Your task to perform on an android device: toggle sleep mode Image 0: 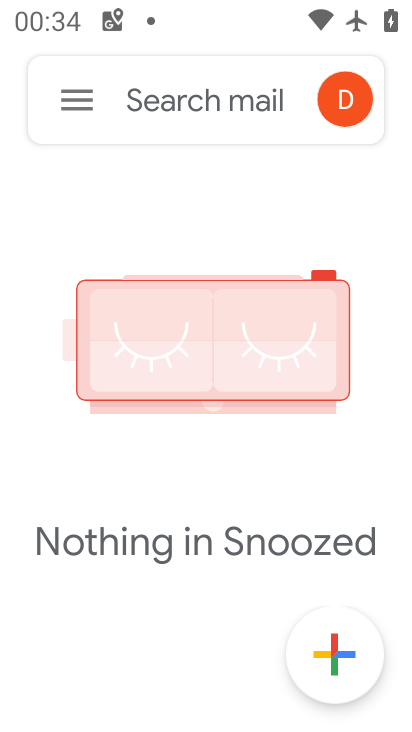
Step 0: press home button
Your task to perform on an android device: toggle sleep mode Image 1: 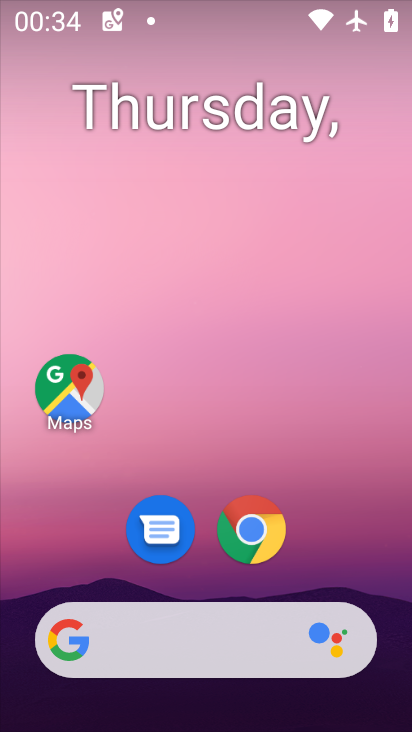
Step 1: drag from (394, 636) to (350, 155)
Your task to perform on an android device: toggle sleep mode Image 2: 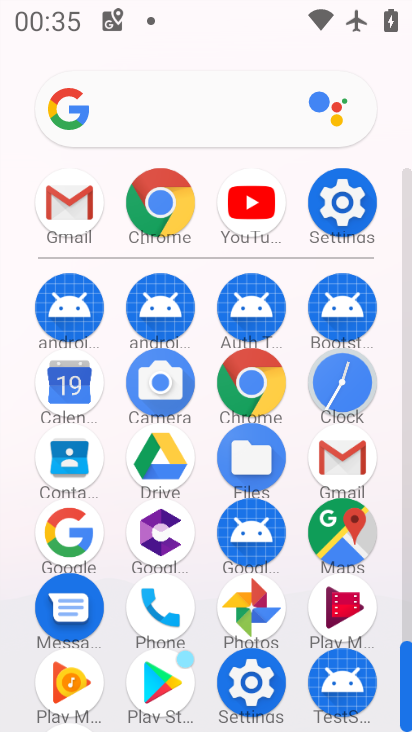
Step 2: click (250, 682)
Your task to perform on an android device: toggle sleep mode Image 3: 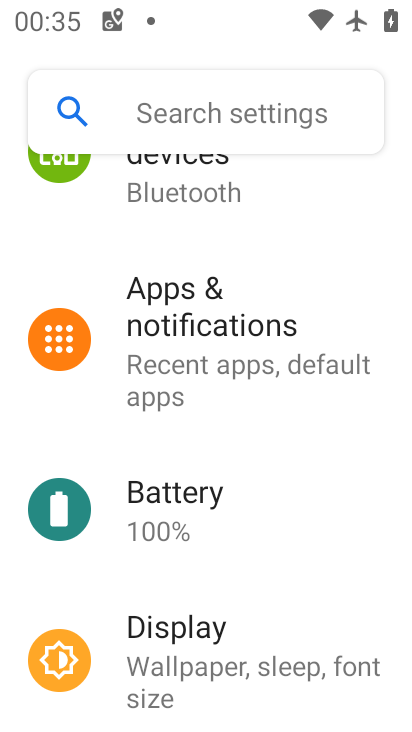
Step 3: click (193, 649)
Your task to perform on an android device: toggle sleep mode Image 4: 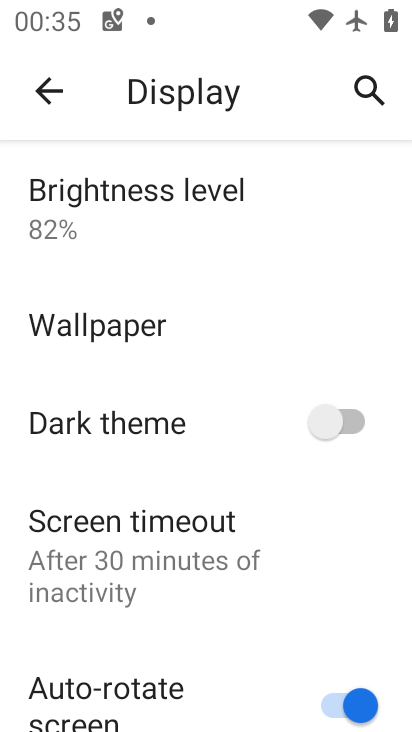
Step 4: drag from (336, 663) to (303, 268)
Your task to perform on an android device: toggle sleep mode Image 5: 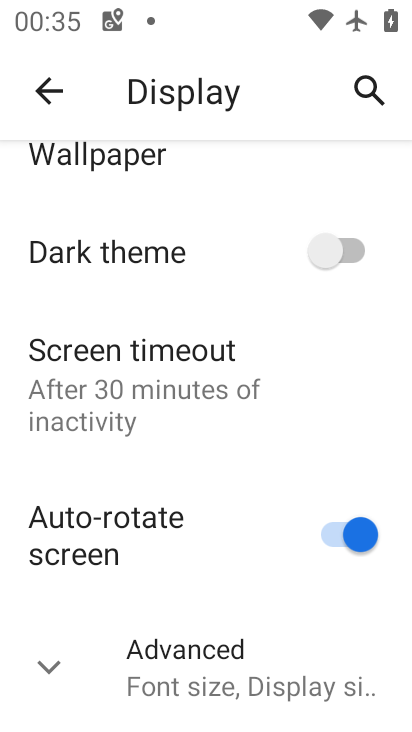
Step 5: click (61, 659)
Your task to perform on an android device: toggle sleep mode Image 6: 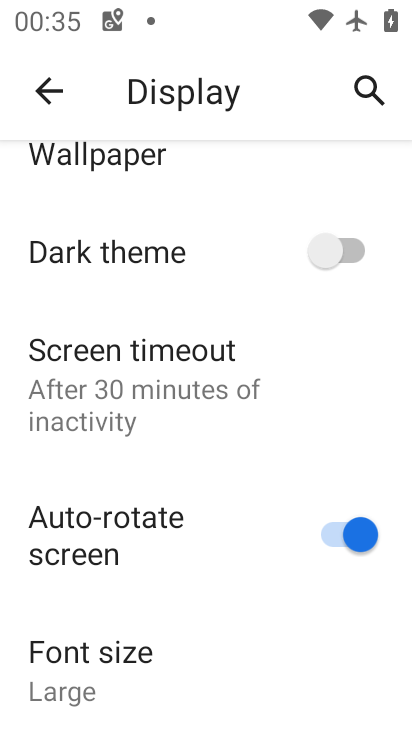
Step 6: task complete